Your task to perform on an android device: Open wifi settings Image 0: 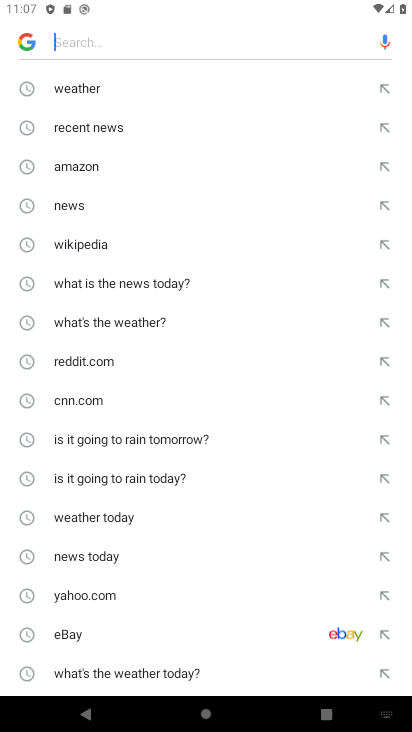
Step 0: press home button
Your task to perform on an android device: Open wifi settings Image 1: 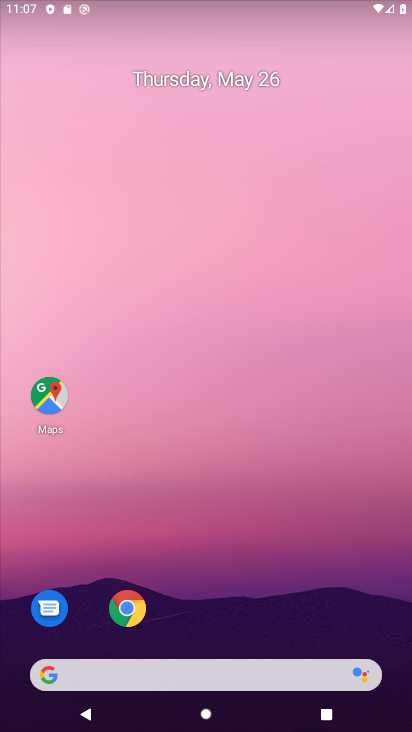
Step 1: drag from (278, 560) to (309, 120)
Your task to perform on an android device: Open wifi settings Image 2: 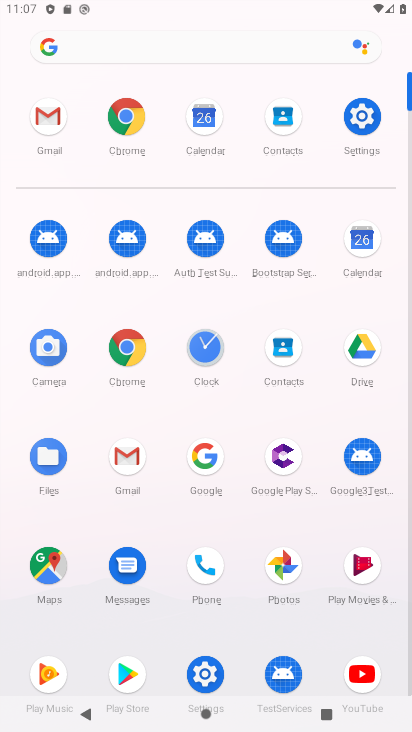
Step 2: click (376, 114)
Your task to perform on an android device: Open wifi settings Image 3: 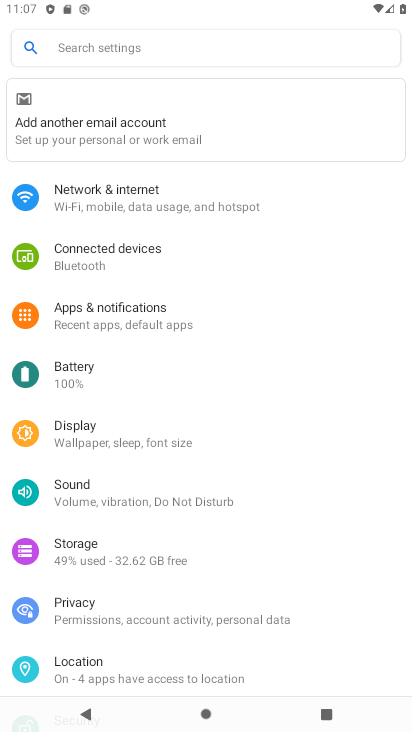
Step 3: click (170, 188)
Your task to perform on an android device: Open wifi settings Image 4: 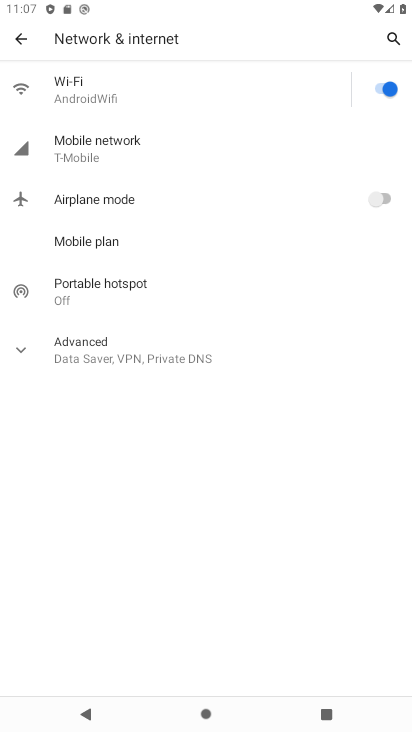
Step 4: click (188, 50)
Your task to perform on an android device: Open wifi settings Image 5: 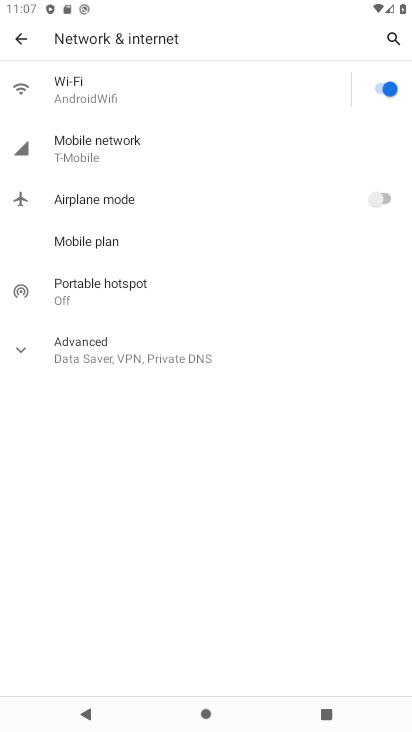
Step 5: click (195, 75)
Your task to perform on an android device: Open wifi settings Image 6: 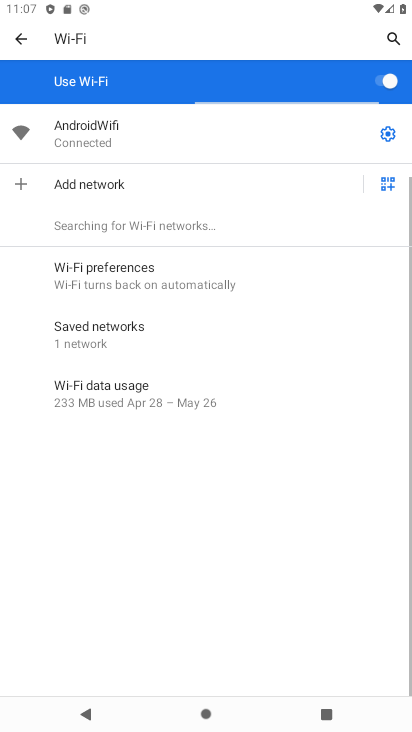
Step 6: click (388, 134)
Your task to perform on an android device: Open wifi settings Image 7: 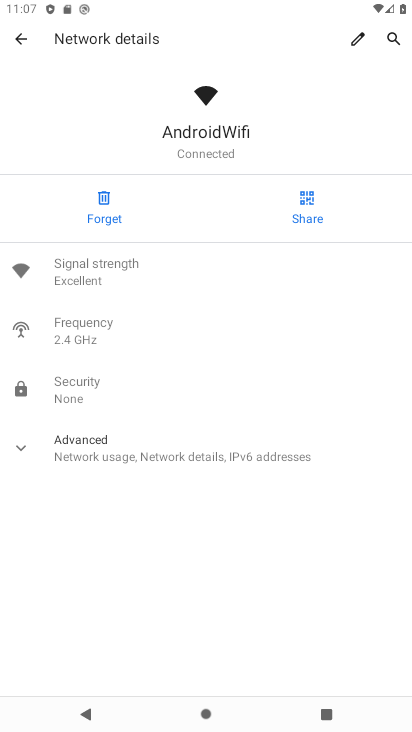
Step 7: task complete